Your task to perform on an android device: search for starred emails in the gmail app Image 0: 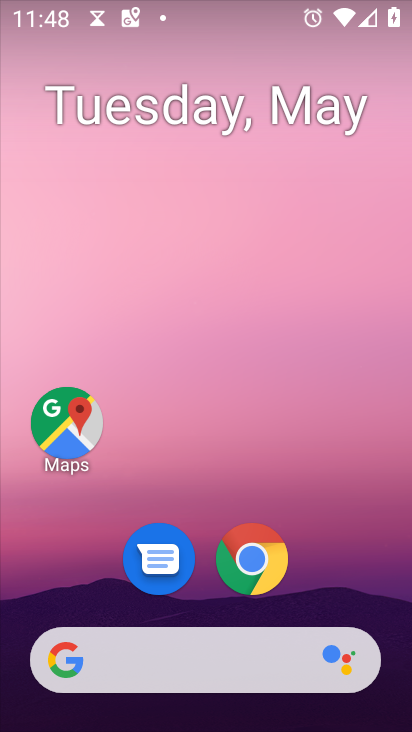
Step 0: drag from (309, 481) to (301, 9)
Your task to perform on an android device: search for starred emails in the gmail app Image 1: 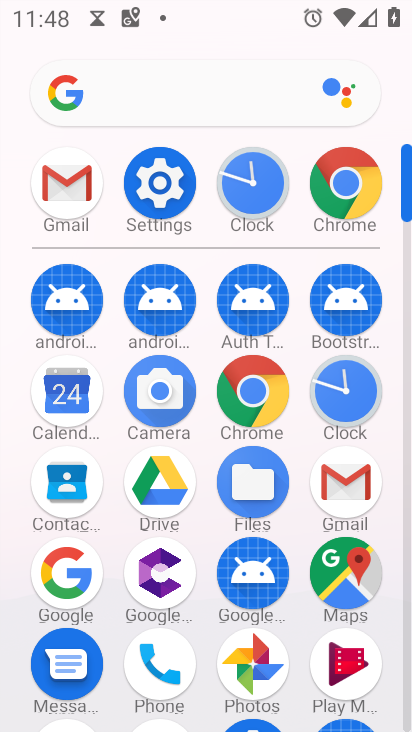
Step 1: click (362, 472)
Your task to perform on an android device: search for starred emails in the gmail app Image 2: 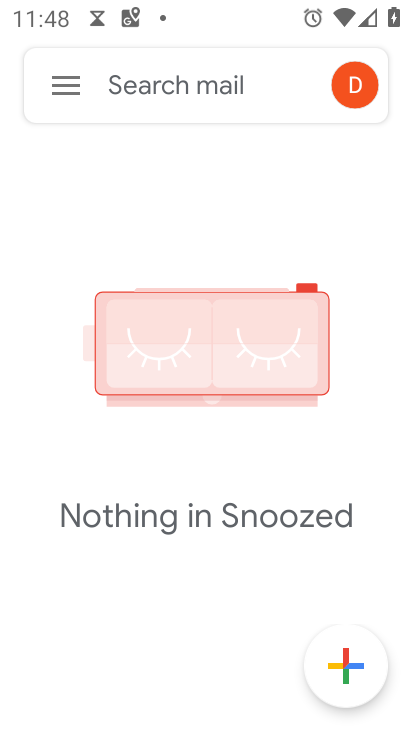
Step 2: click (51, 79)
Your task to perform on an android device: search for starred emails in the gmail app Image 3: 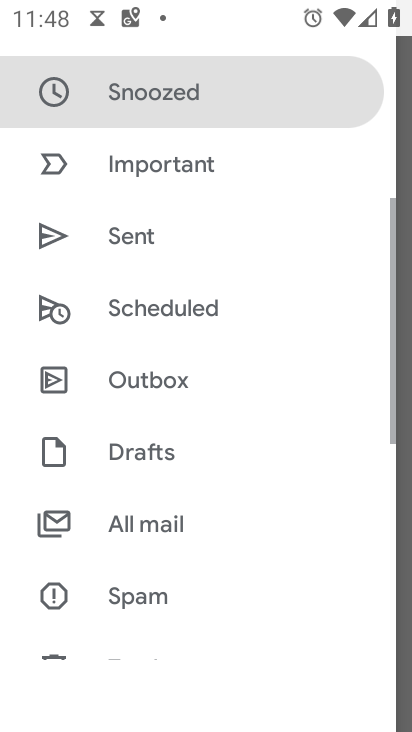
Step 3: drag from (129, 182) to (130, 683)
Your task to perform on an android device: search for starred emails in the gmail app Image 4: 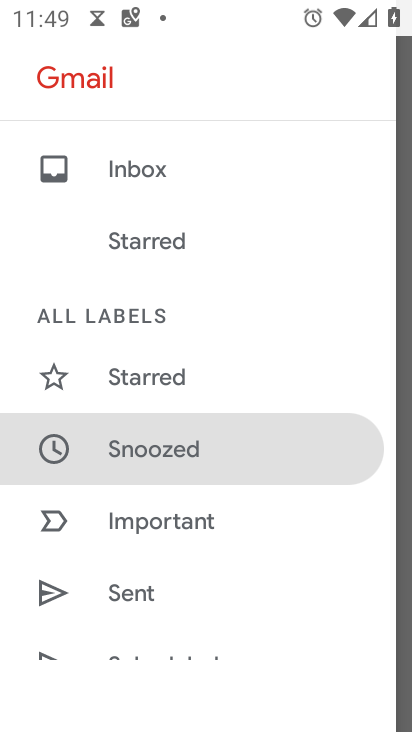
Step 4: click (109, 372)
Your task to perform on an android device: search for starred emails in the gmail app Image 5: 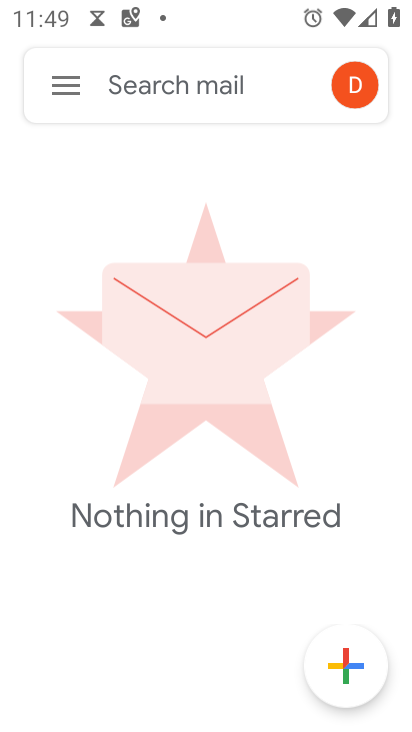
Step 5: task complete